Your task to perform on an android device: turn off airplane mode Image 0: 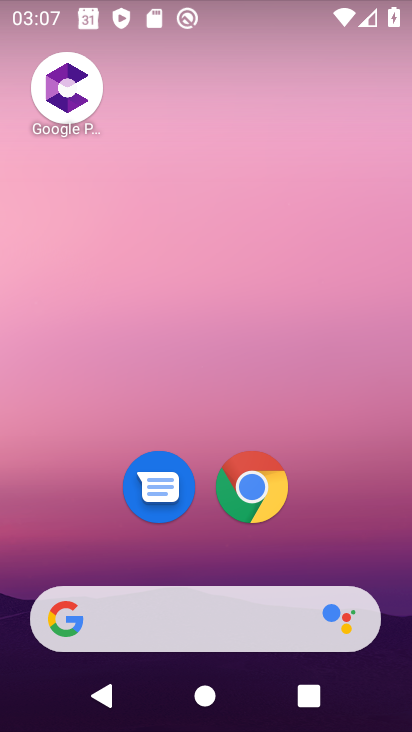
Step 0: drag from (231, 578) to (402, 32)
Your task to perform on an android device: turn off airplane mode Image 1: 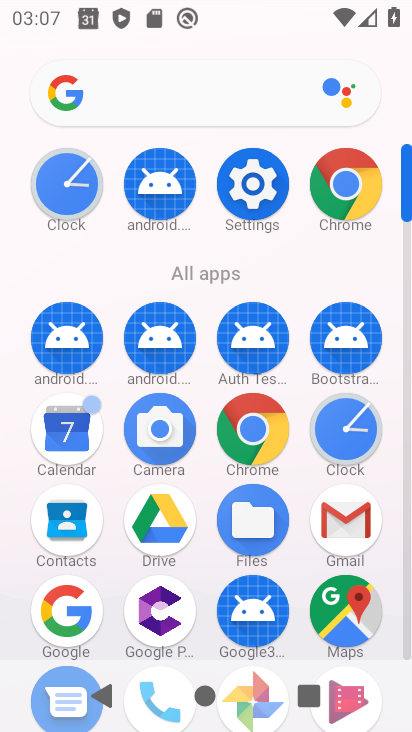
Step 1: click (254, 187)
Your task to perform on an android device: turn off airplane mode Image 2: 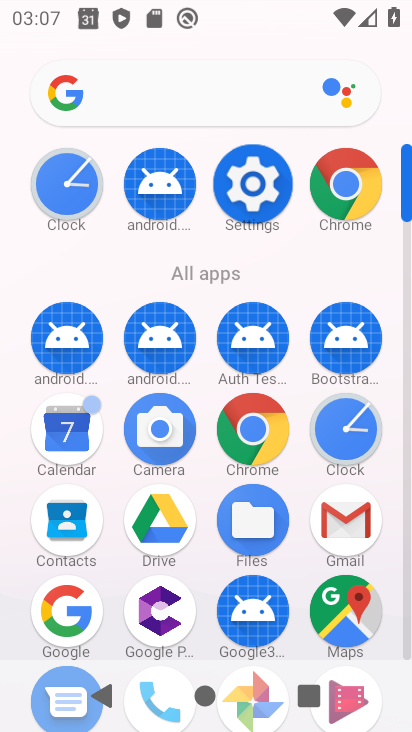
Step 2: click (254, 187)
Your task to perform on an android device: turn off airplane mode Image 3: 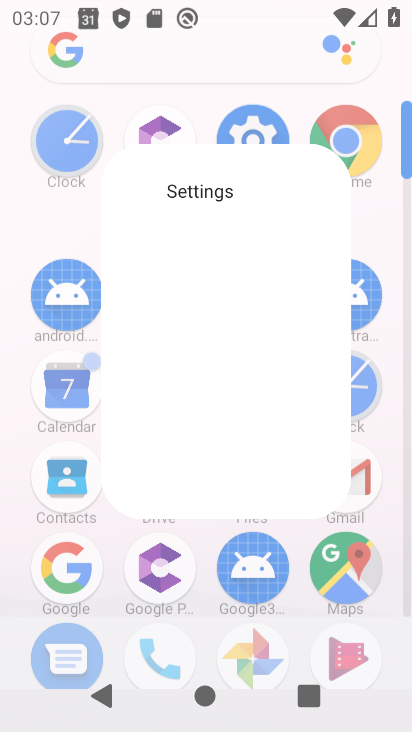
Step 3: click (252, 187)
Your task to perform on an android device: turn off airplane mode Image 4: 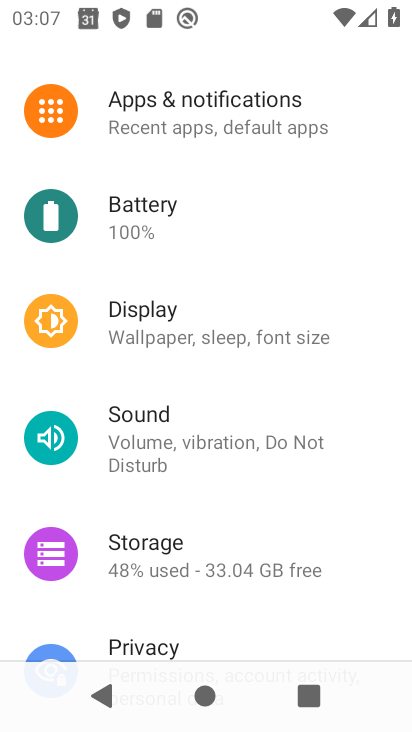
Step 4: click (250, 186)
Your task to perform on an android device: turn off airplane mode Image 5: 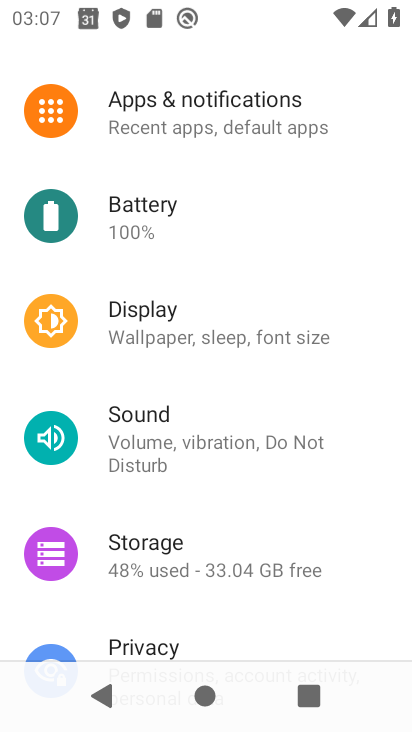
Step 5: click (259, 207)
Your task to perform on an android device: turn off airplane mode Image 6: 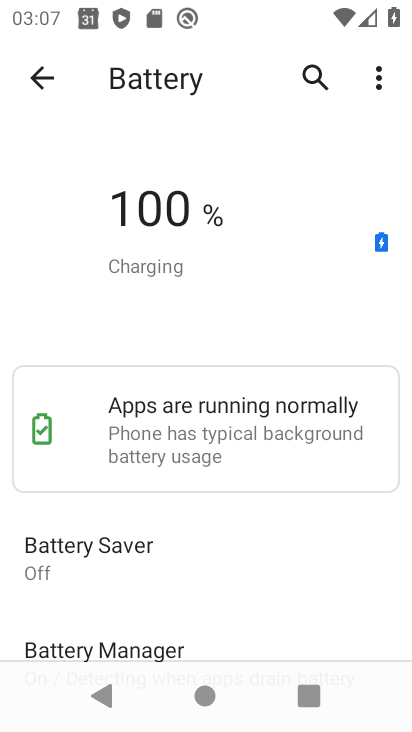
Step 6: drag from (192, 507) to (185, 97)
Your task to perform on an android device: turn off airplane mode Image 7: 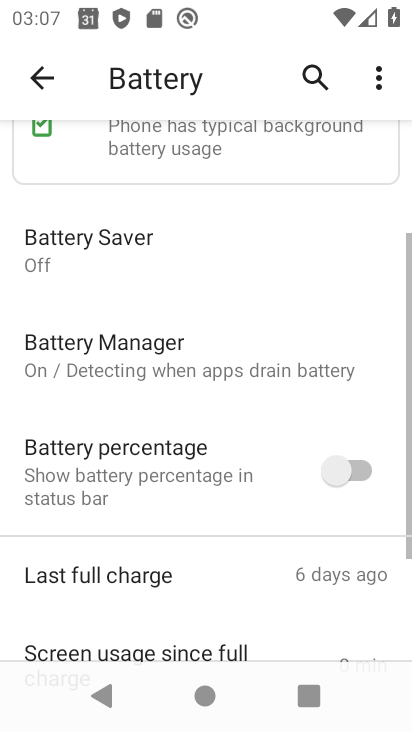
Step 7: drag from (204, 330) to (164, 21)
Your task to perform on an android device: turn off airplane mode Image 8: 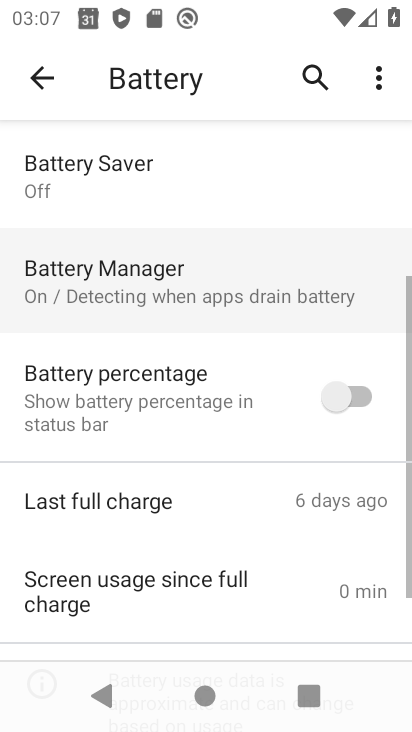
Step 8: drag from (162, 287) to (170, 79)
Your task to perform on an android device: turn off airplane mode Image 9: 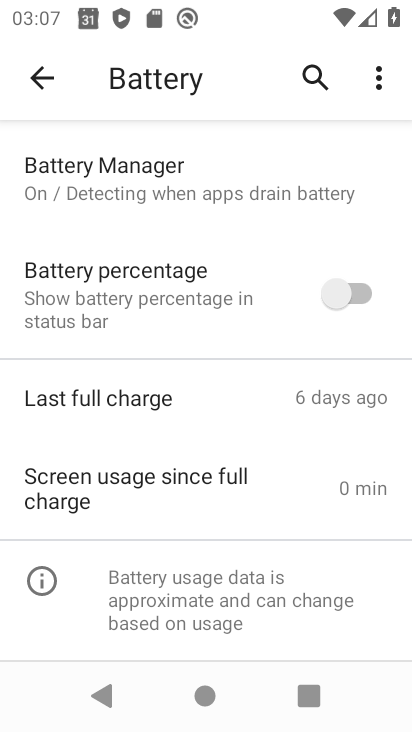
Step 9: click (46, 88)
Your task to perform on an android device: turn off airplane mode Image 10: 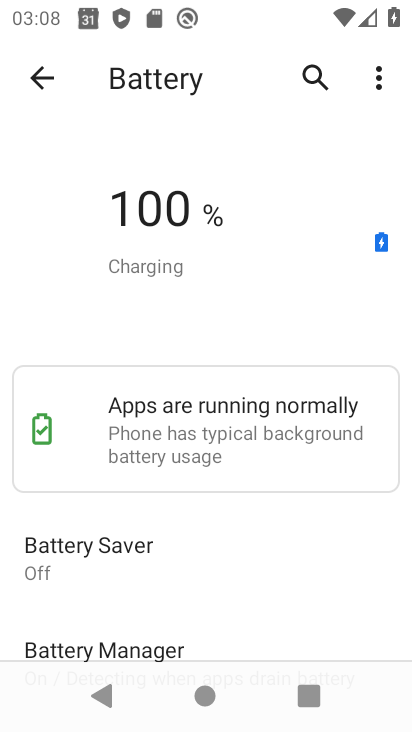
Step 10: click (62, 92)
Your task to perform on an android device: turn off airplane mode Image 11: 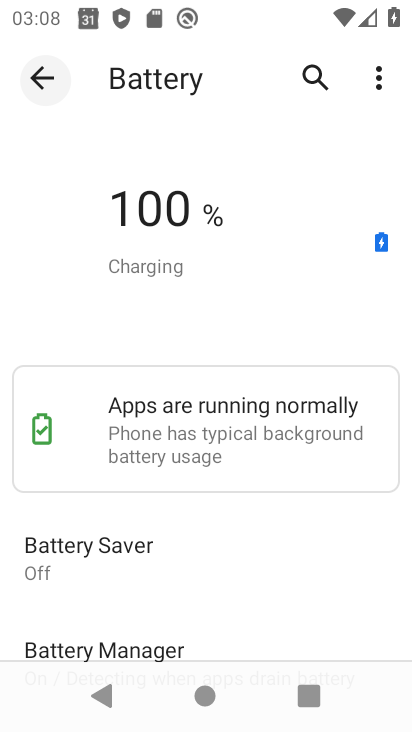
Step 11: click (50, 85)
Your task to perform on an android device: turn off airplane mode Image 12: 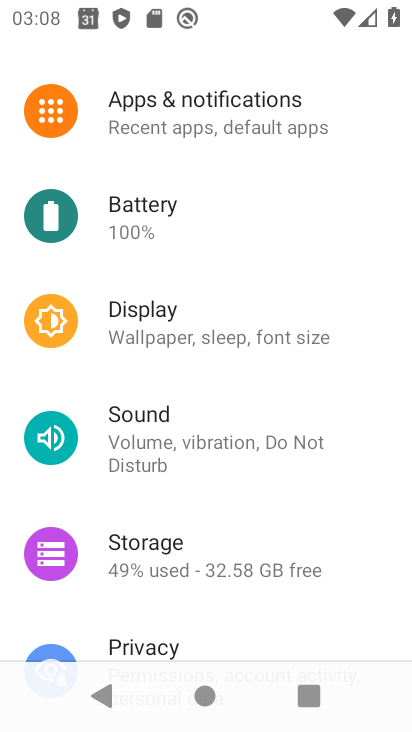
Step 12: drag from (190, 547) to (183, 164)
Your task to perform on an android device: turn off airplane mode Image 13: 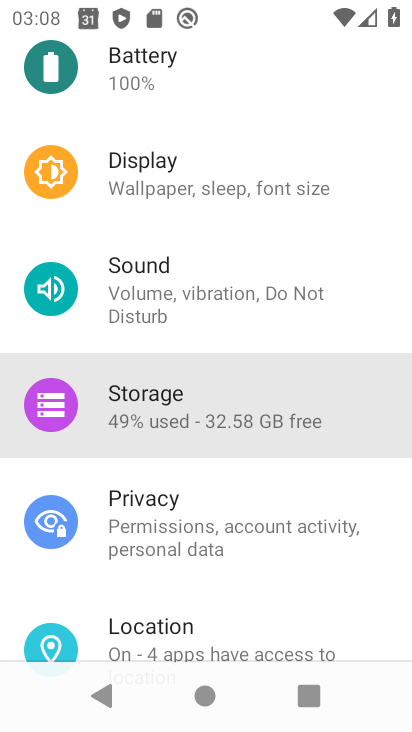
Step 13: drag from (224, 464) to (183, 137)
Your task to perform on an android device: turn off airplane mode Image 14: 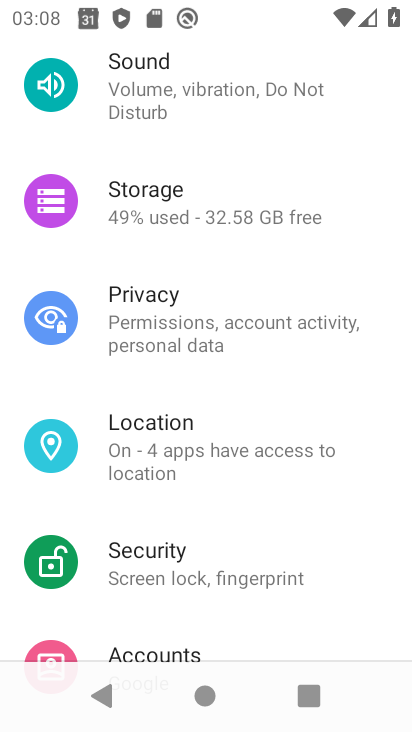
Step 14: drag from (176, 230) to (172, 102)
Your task to perform on an android device: turn off airplane mode Image 15: 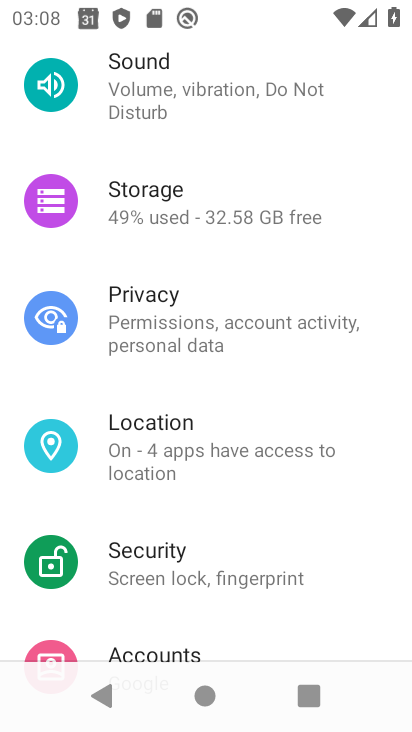
Step 15: drag from (143, 223) to (189, 442)
Your task to perform on an android device: turn off airplane mode Image 16: 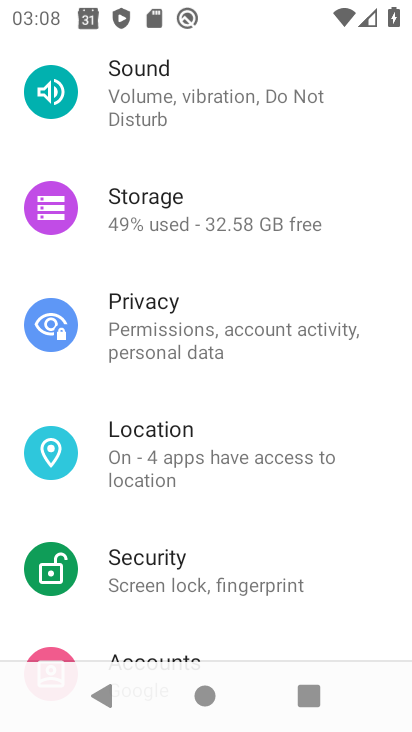
Step 16: drag from (188, 197) to (265, 548)
Your task to perform on an android device: turn off airplane mode Image 17: 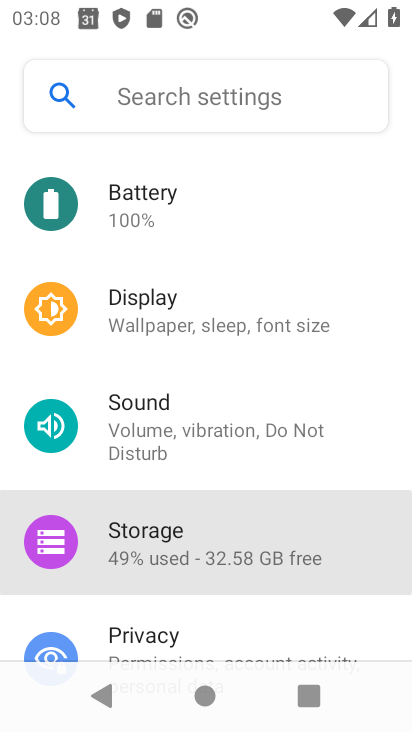
Step 17: drag from (188, 255) to (231, 512)
Your task to perform on an android device: turn off airplane mode Image 18: 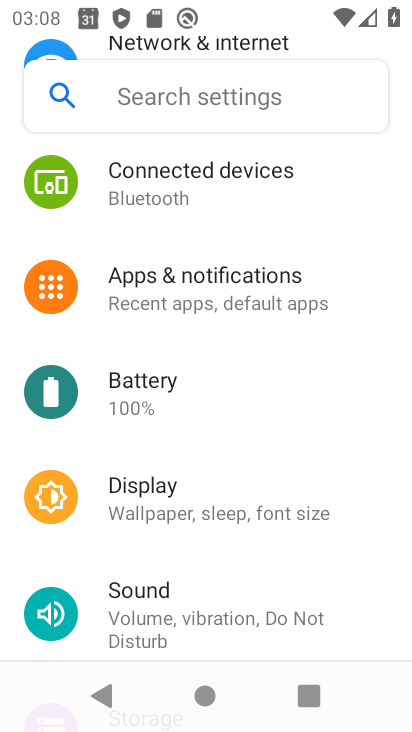
Step 18: drag from (182, 209) to (191, 474)
Your task to perform on an android device: turn off airplane mode Image 19: 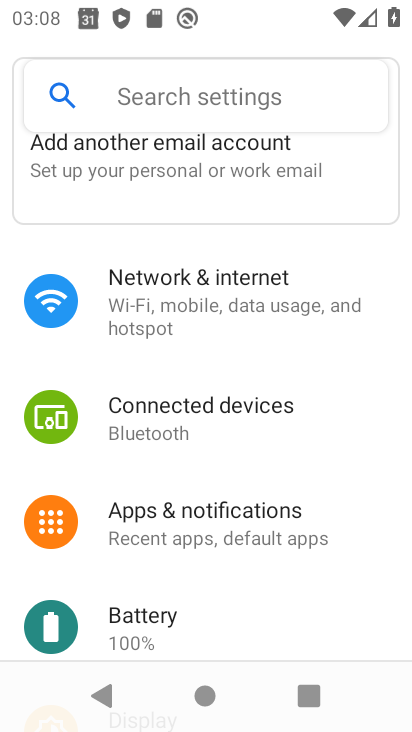
Step 19: drag from (151, 183) to (197, 603)
Your task to perform on an android device: turn off airplane mode Image 20: 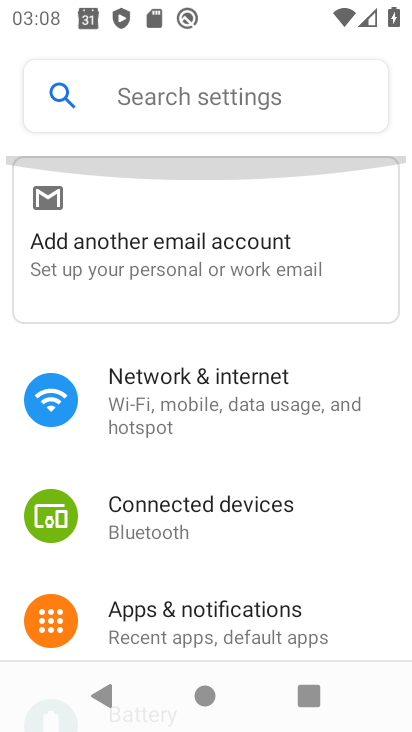
Step 20: drag from (161, 352) to (177, 474)
Your task to perform on an android device: turn off airplane mode Image 21: 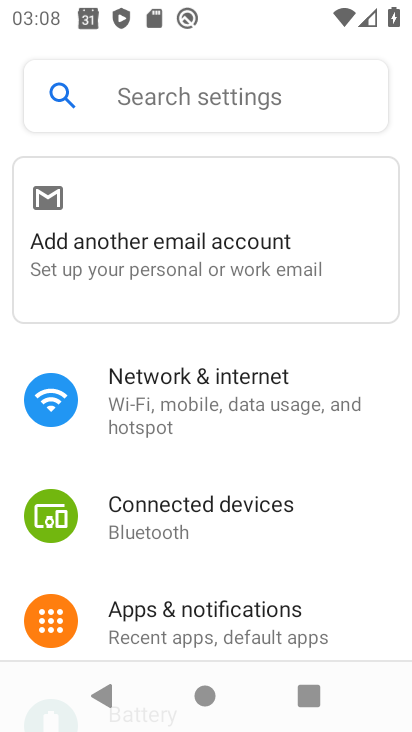
Step 21: drag from (211, 562) to (204, 402)
Your task to perform on an android device: turn off airplane mode Image 22: 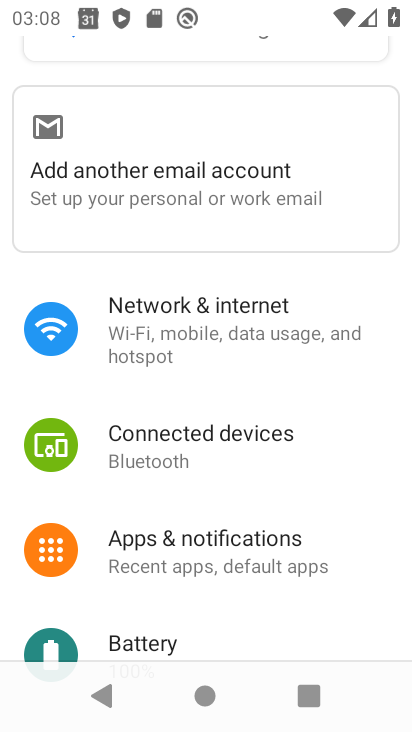
Step 22: click (177, 322)
Your task to perform on an android device: turn off airplane mode Image 23: 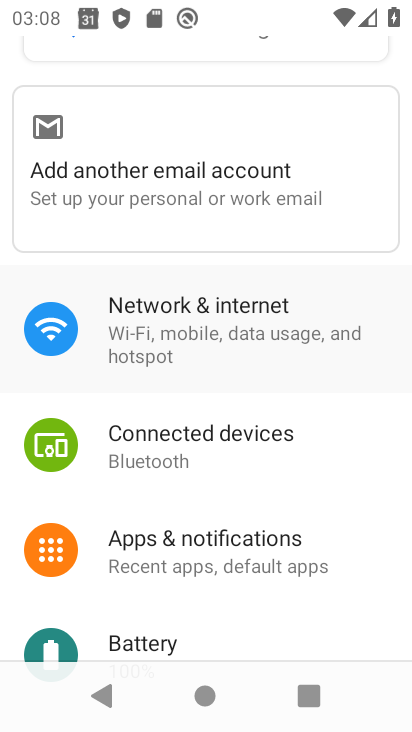
Step 23: click (177, 322)
Your task to perform on an android device: turn off airplane mode Image 24: 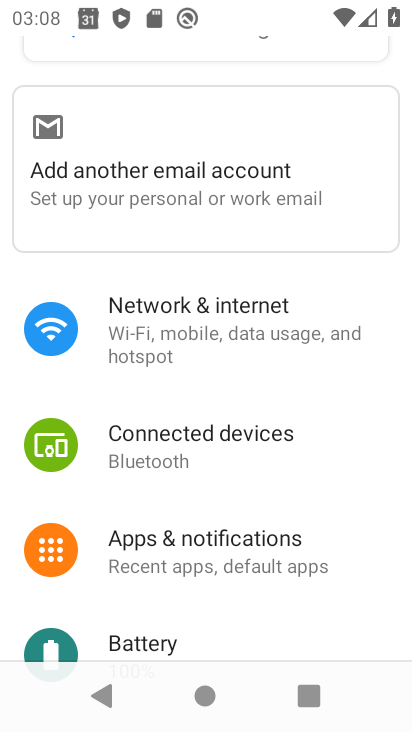
Step 24: click (177, 322)
Your task to perform on an android device: turn off airplane mode Image 25: 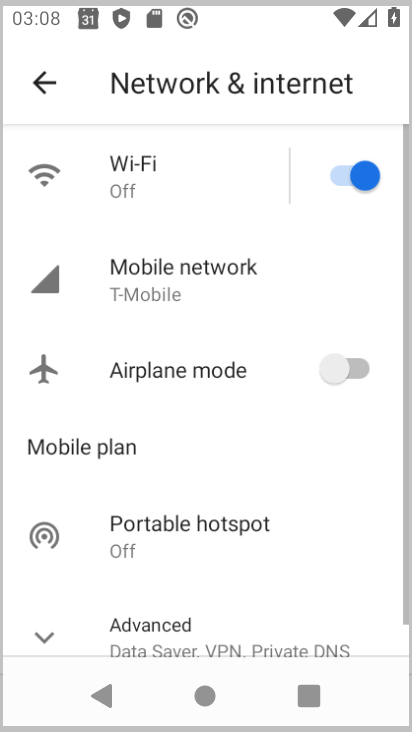
Step 25: click (178, 323)
Your task to perform on an android device: turn off airplane mode Image 26: 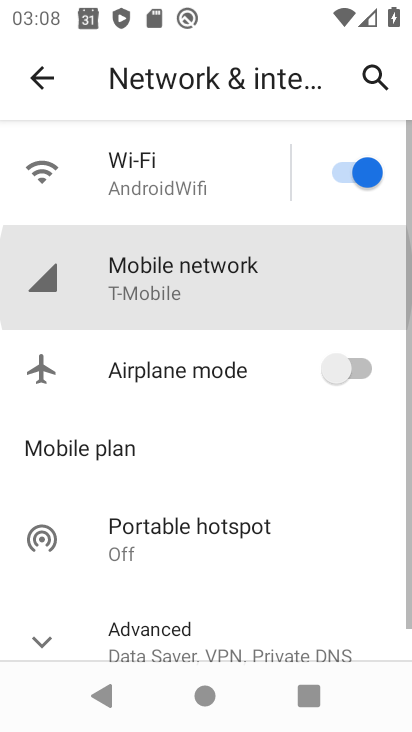
Step 26: click (168, 325)
Your task to perform on an android device: turn off airplane mode Image 27: 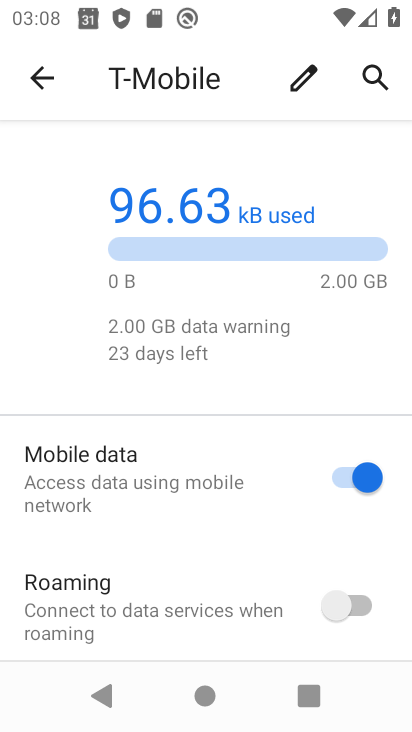
Step 27: click (43, 87)
Your task to perform on an android device: turn off airplane mode Image 28: 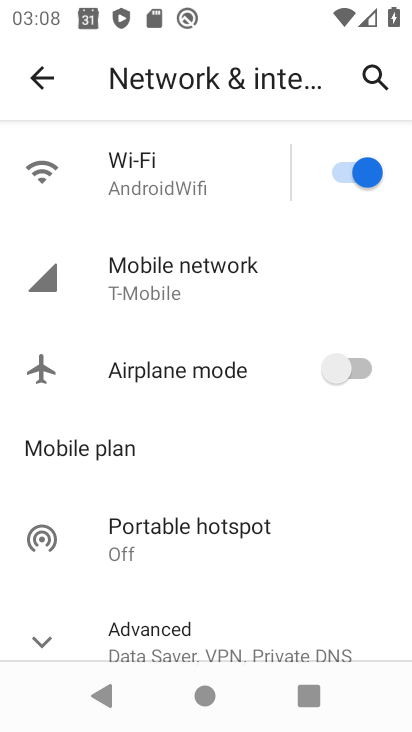
Step 28: task complete